Your task to perform on an android device: toggle improve location accuracy Image 0: 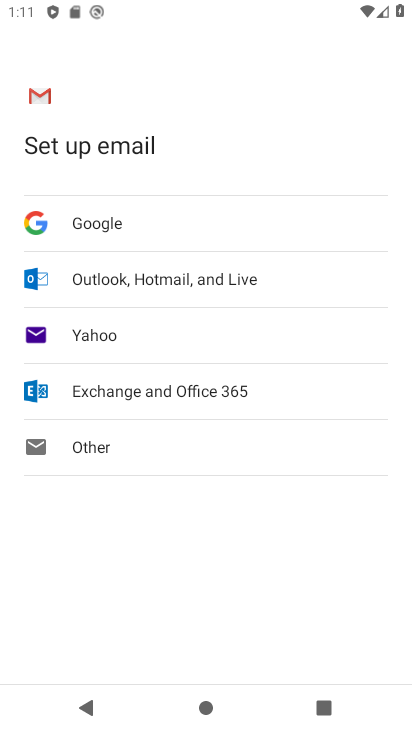
Step 0: press home button
Your task to perform on an android device: toggle improve location accuracy Image 1: 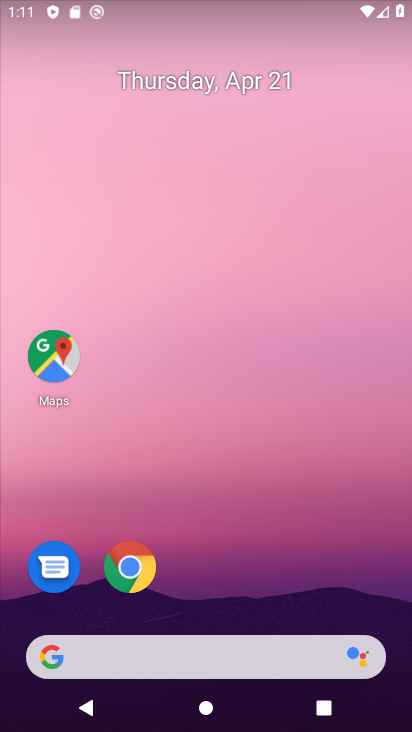
Step 1: drag from (211, 618) to (231, 9)
Your task to perform on an android device: toggle improve location accuracy Image 2: 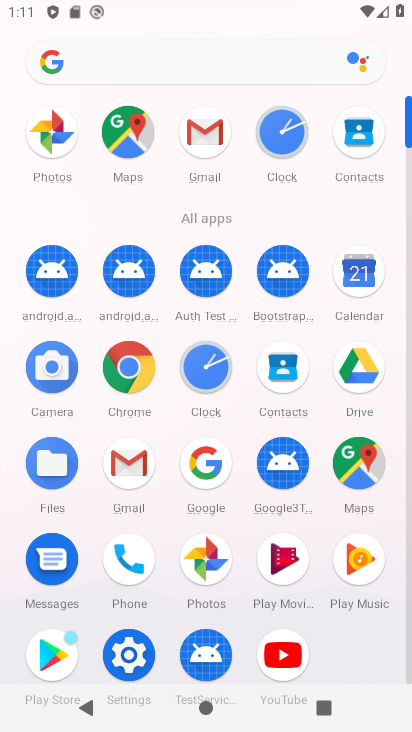
Step 2: click (126, 649)
Your task to perform on an android device: toggle improve location accuracy Image 3: 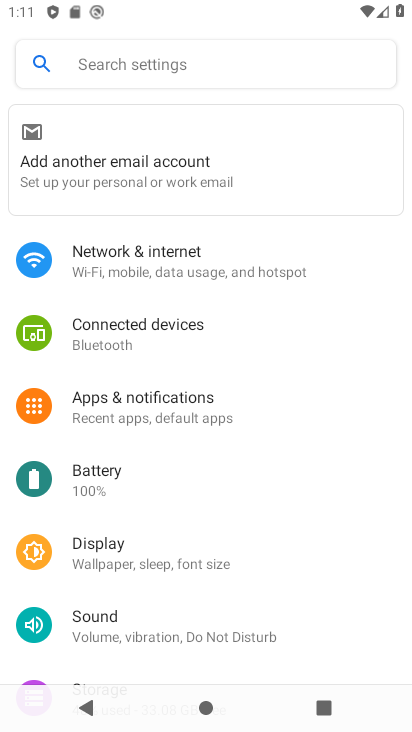
Step 3: drag from (230, 616) to (235, 120)
Your task to perform on an android device: toggle improve location accuracy Image 4: 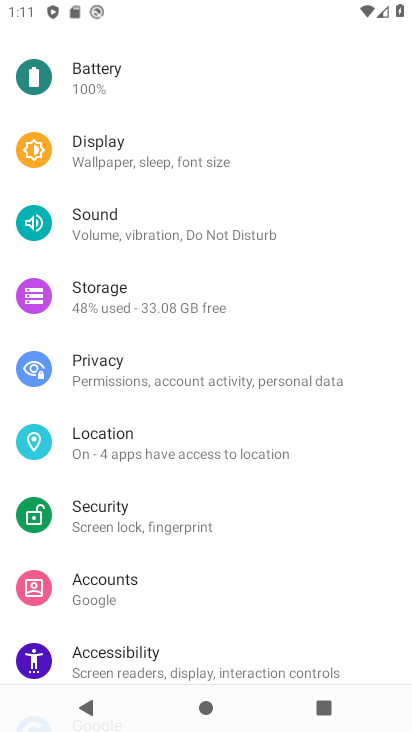
Step 4: click (155, 431)
Your task to perform on an android device: toggle improve location accuracy Image 5: 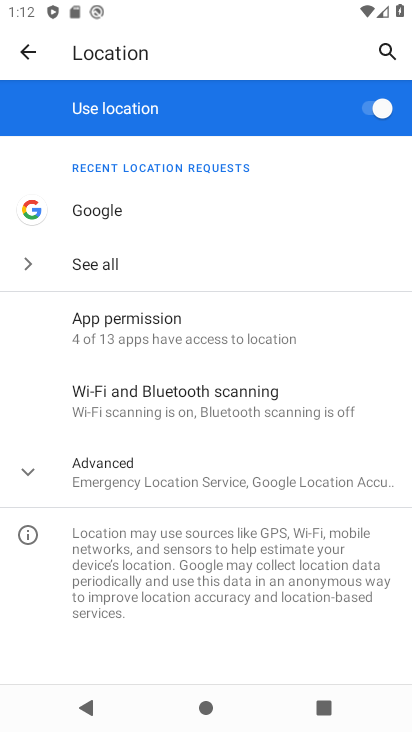
Step 5: click (39, 468)
Your task to perform on an android device: toggle improve location accuracy Image 6: 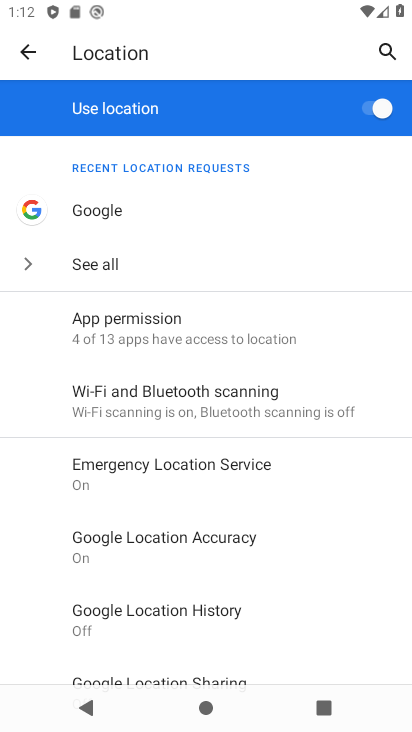
Step 6: click (122, 548)
Your task to perform on an android device: toggle improve location accuracy Image 7: 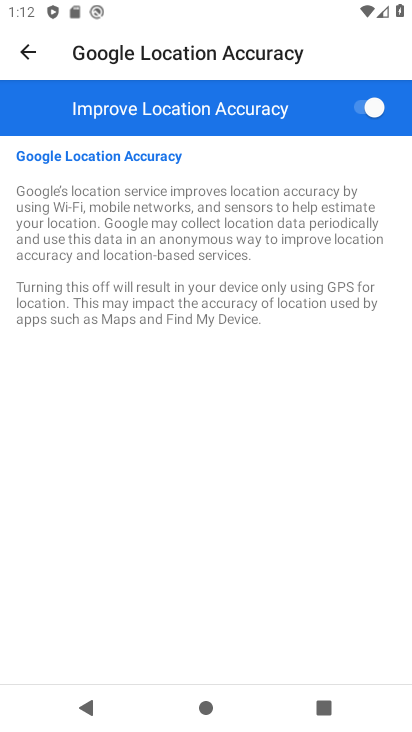
Step 7: click (362, 107)
Your task to perform on an android device: toggle improve location accuracy Image 8: 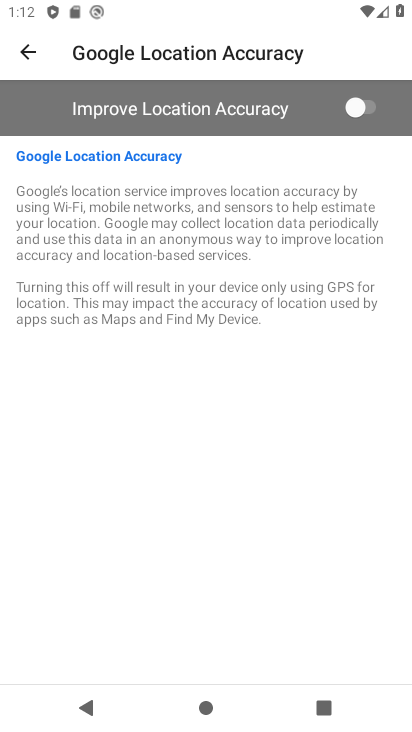
Step 8: task complete